Your task to perform on an android device: turn off smart reply in the gmail app Image 0: 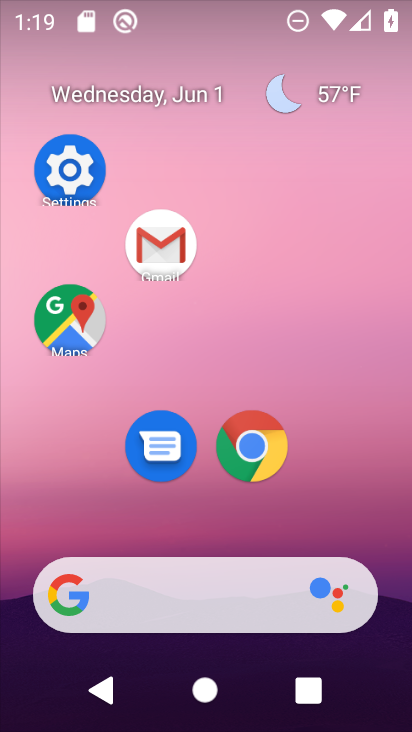
Step 0: click (149, 248)
Your task to perform on an android device: turn off smart reply in the gmail app Image 1: 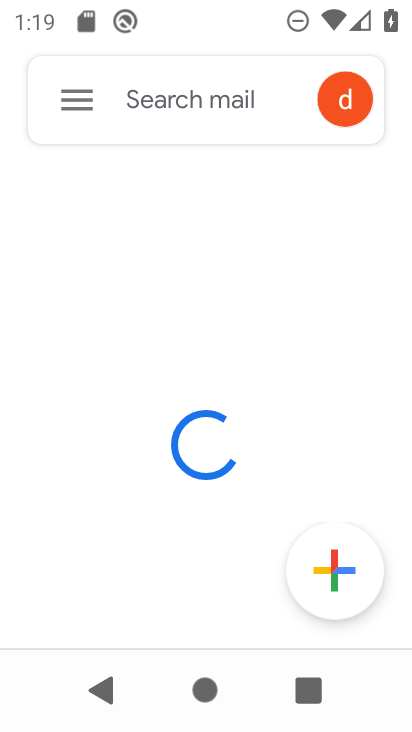
Step 1: click (76, 109)
Your task to perform on an android device: turn off smart reply in the gmail app Image 2: 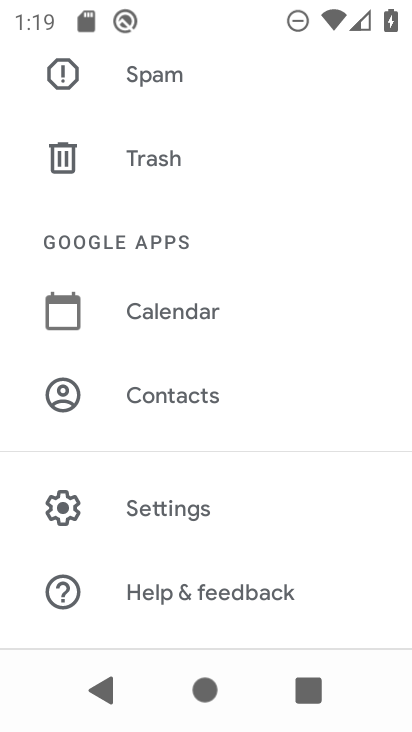
Step 2: click (291, 514)
Your task to perform on an android device: turn off smart reply in the gmail app Image 3: 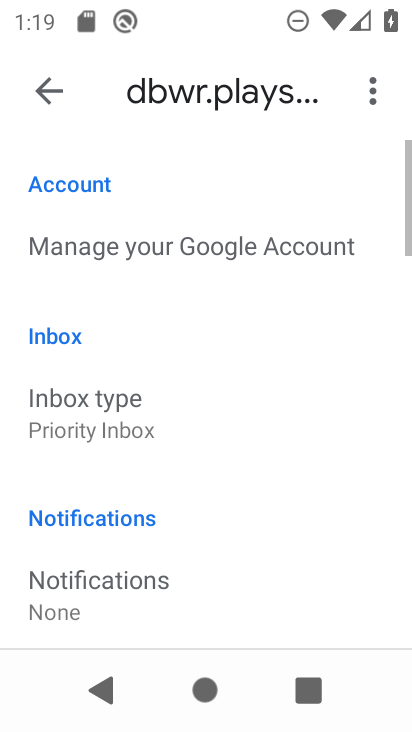
Step 3: drag from (289, 508) to (258, 173)
Your task to perform on an android device: turn off smart reply in the gmail app Image 4: 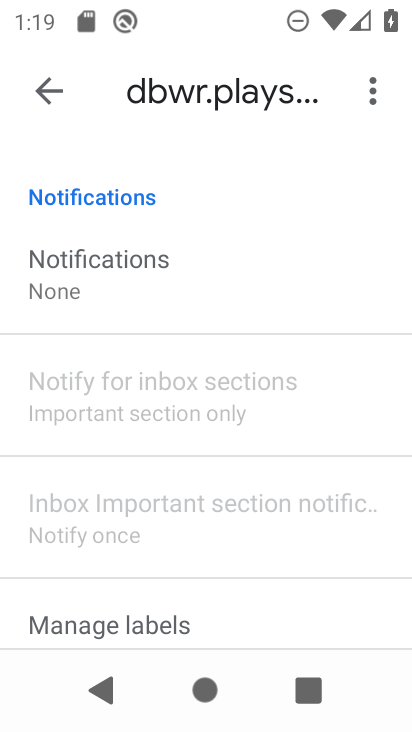
Step 4: drag from (215, 533) to (219, 225)
Your task to perform on an android device: turn off smart reply in the gmail app Image 5: 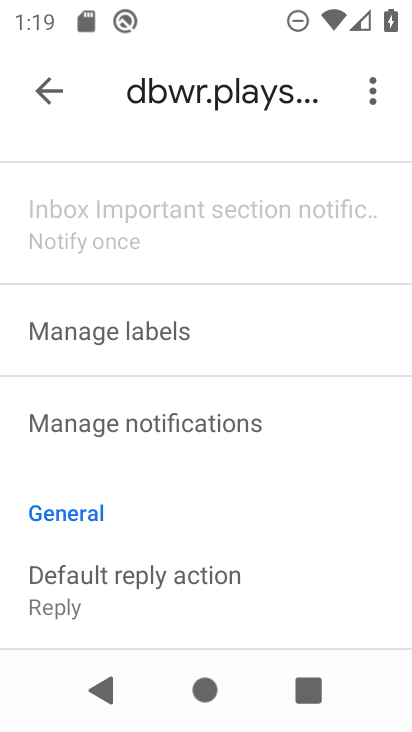
Step 5: drag from (242, 546) to (269, 177)
Your task to perform on an android device: turn off smart reply in the gmail app Image 6: 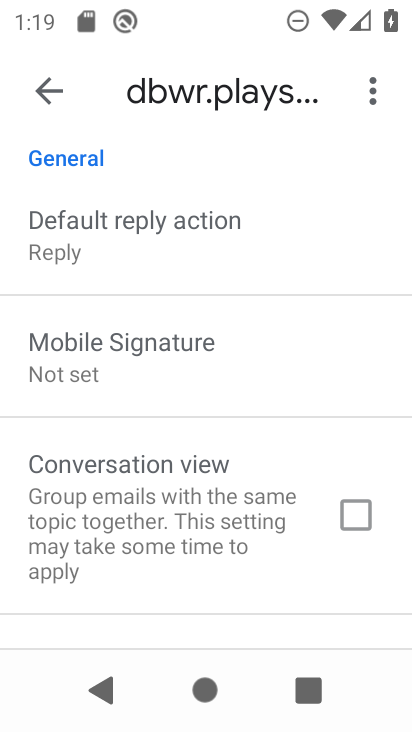
Step 6: drag from (276, 573) to (295, 101)
Your task to perform on an android device: turn off smart reply in the gmail app Image 7: 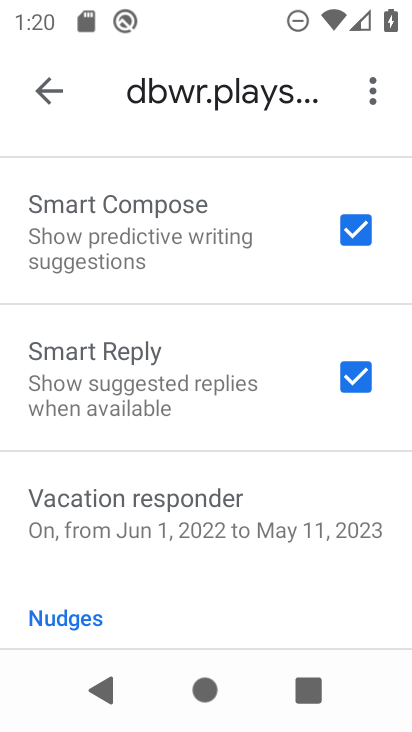
Step 7: drag from (332, 515) to (339, 178)
Your task to perform on an android device: turn off smart reply in the gmail app Image 8: 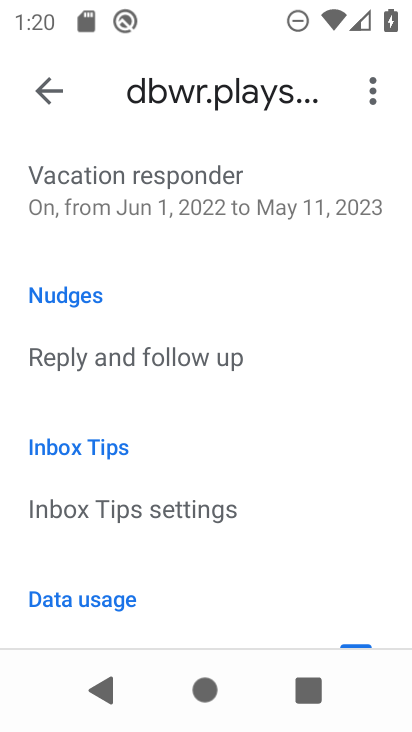
Step 8: drag from (322, 183) to (322, 511)
Your task to perform on an android device: turn off smart reply in the gmail app Image 9: 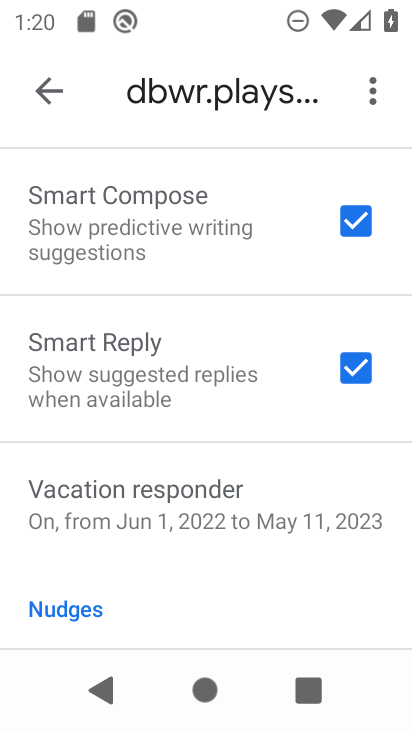
Step 9: click (344, 355)
Your task to perform on an android device: turn off smart reply in the gmail app Image 10: 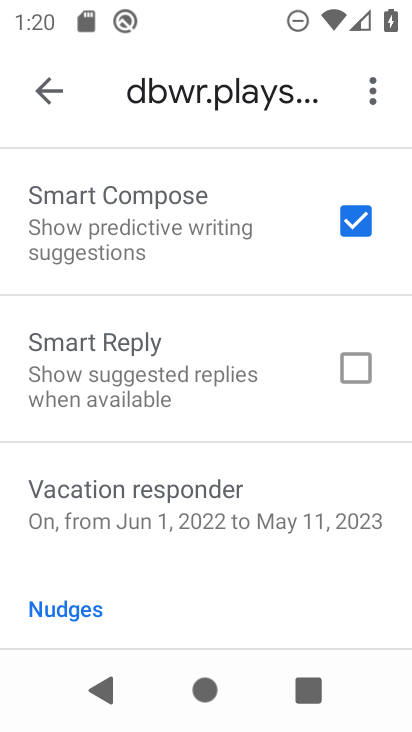
Step 10: task complete